Your task to perform on an android device: Open Reddit.com Image 0: 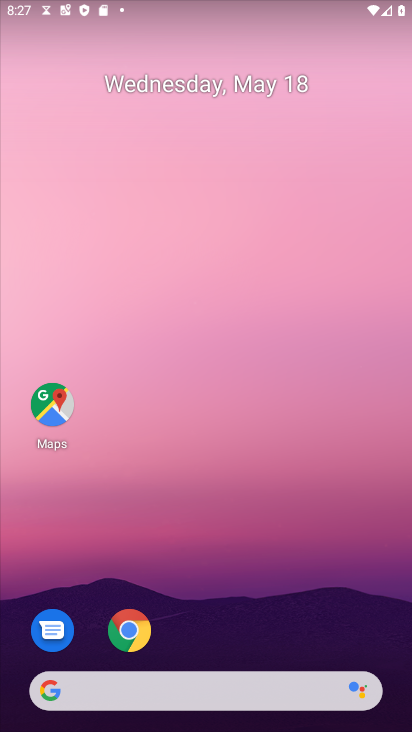
Step 0: click (134, 632)
Your task to perform on an android device: Open Reddit.com Image 1: 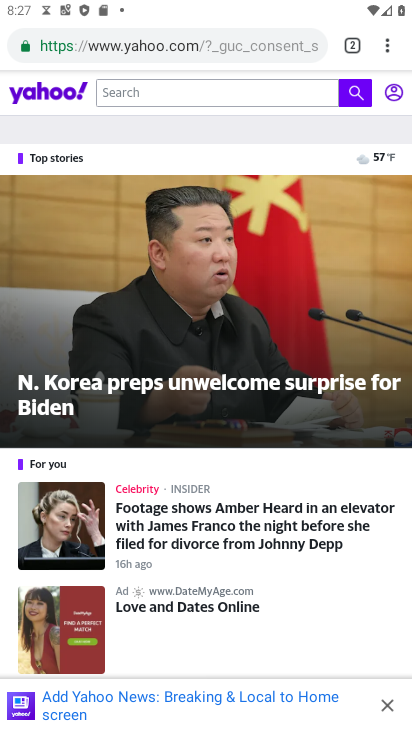
Step 1: drag from (393, 50) to (348, 95)
Your task to perform on an android device: Open Reddit.com Image 2: 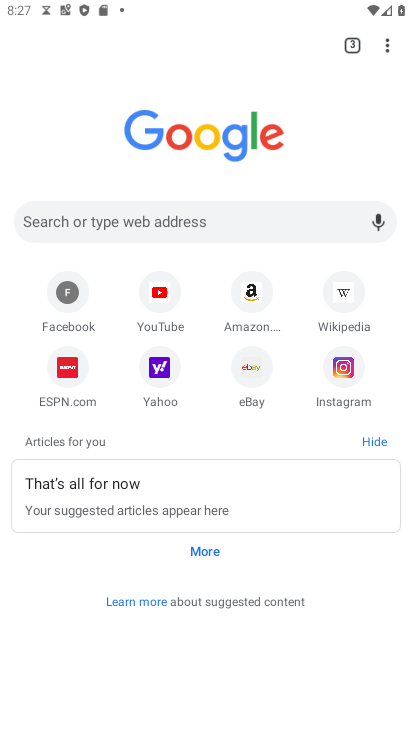
Step 2: click (116, 227)
Your task to perform on an android device: Open Reddit.com Image 3: 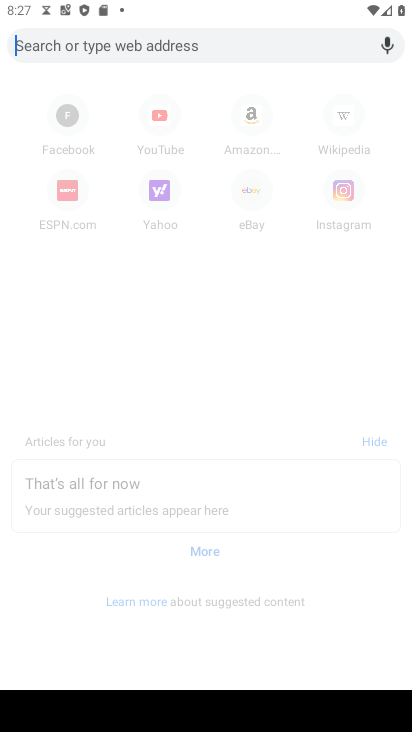
Step 3: type "reddit.com"
Your task to perform on an android device: Open Reddit.com Image 4: 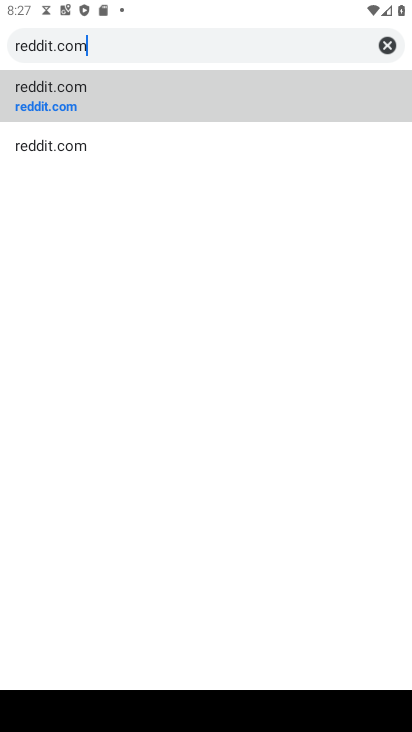
Step 4: click (89, 99)
Your task to perform on an android device: Open Reddit.com Image 5: 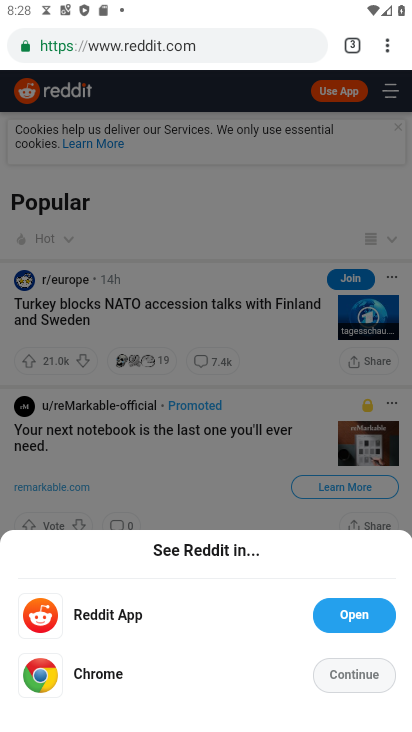
Step 5: task complete